Your task to perform on an android device: Show me productivity apps on the Play Store Image 0: 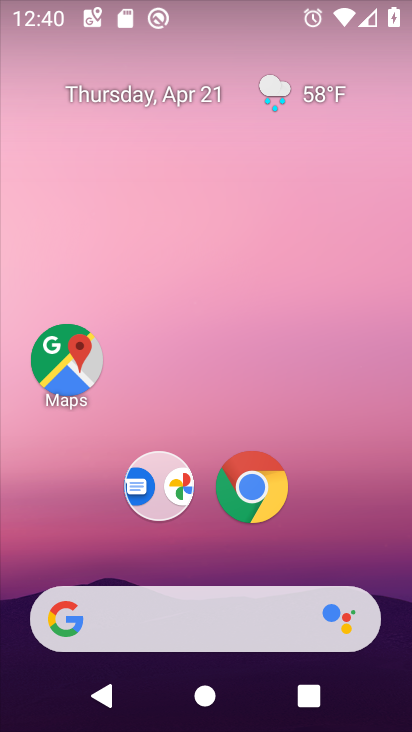
Step 0: drag from (241, 646) to (258, 164)
Your task to perform on an android device: Show me productivity apps on the Play Store Image 1: 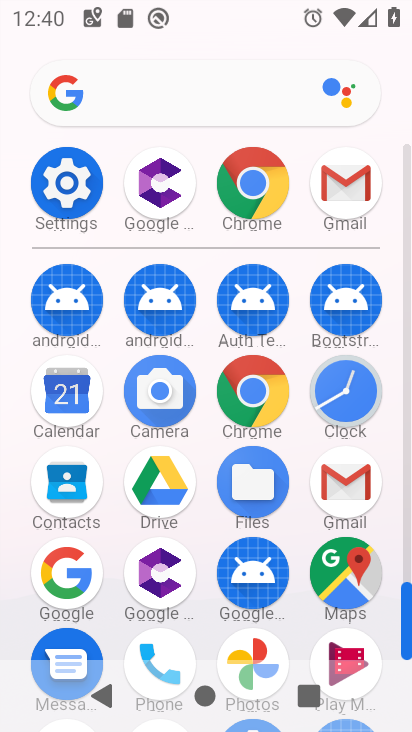
Step 1: drag from (193, 449) to (207, 263)
Your task to perform on an android device: Show me productivity apps on the Play Store Image 2: 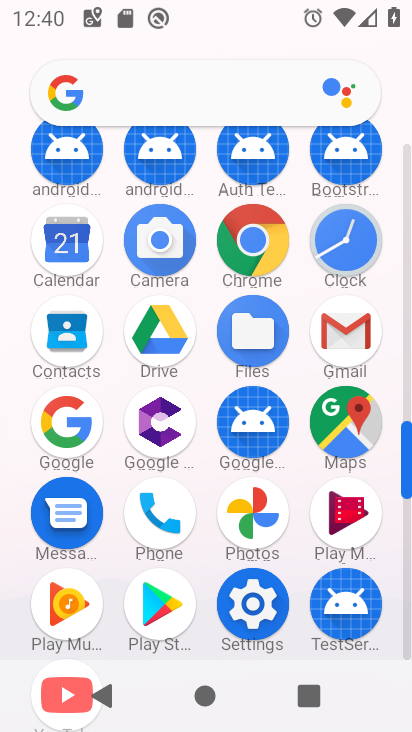
Step 2: click (166, 599)
Your task to perform on an android device: Show me productivity apps on the Play Store Image 3: 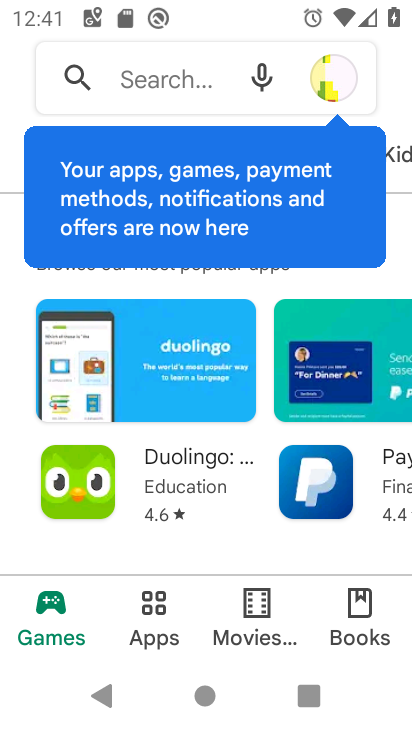
Step 3: click (158, 93)
Your task to perform on an android device: Show me productivity apps on the Play Store Image 4: 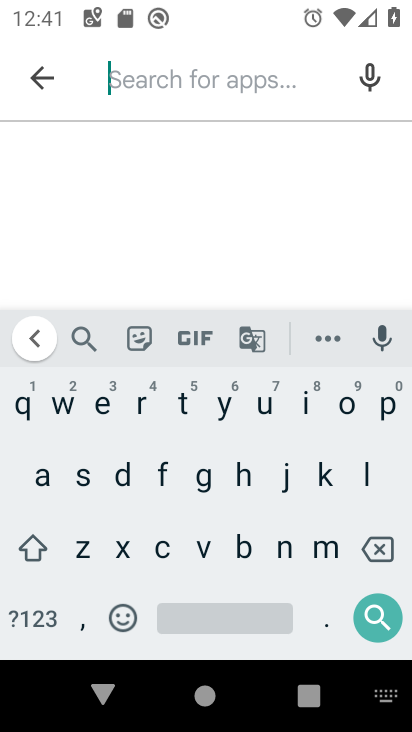
Step 4: click (384, 413)
Your task to perform on an android device: Show me productivity apps on the Play Store Image 5: 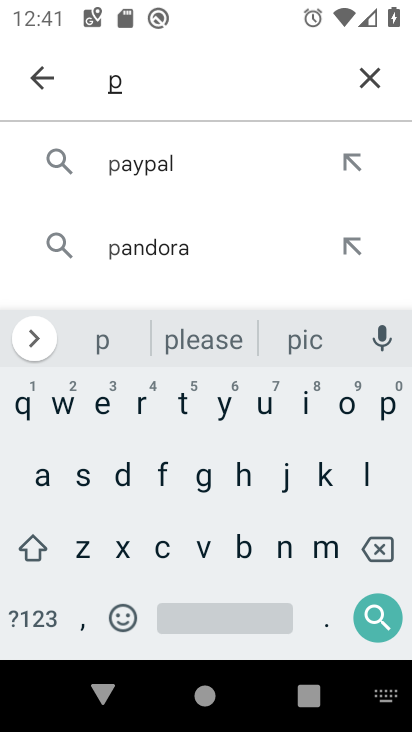
Step 5: click (138, 411)
Your task to perform on an android device: Show me productivity apps on the Play Store Image 6: 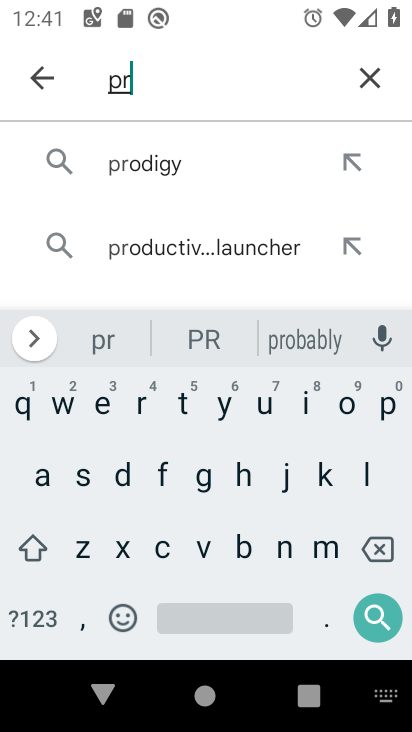
Step 6: click (347, 408)
Your task to perform on an android device: Show me productivity apps on the Play Store Image 7: 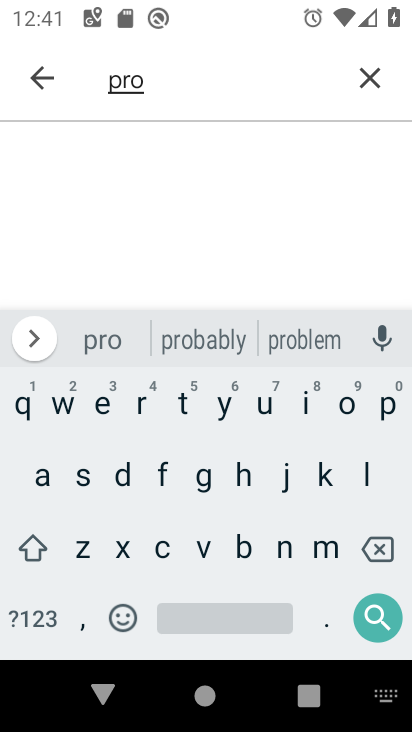
Step 7: click (119, 477)
Your task to perform on an android device: Show me productivity apps on the Play Store Image 8: 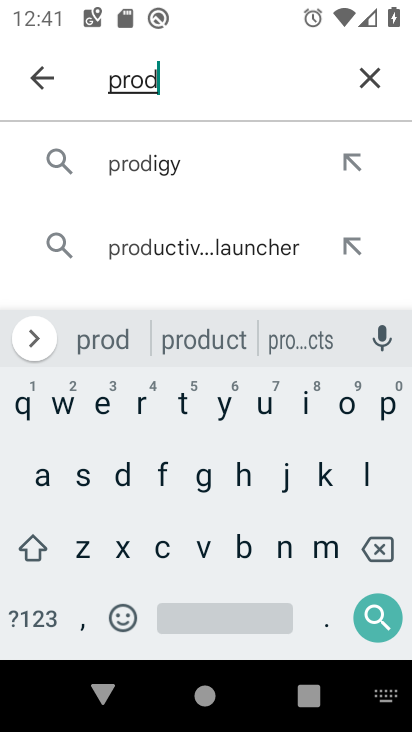
Step 8: click (260, 404)
Your task to perform on an android device: Show me productivity apps on the Play Store Image 9: 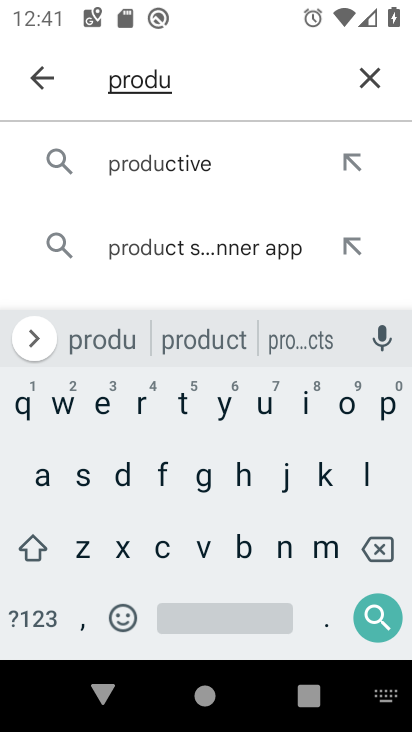
Step 9: click (158, 550)
Your task to perform on an android device: Show me productivity apps on the Play Store Image 10: 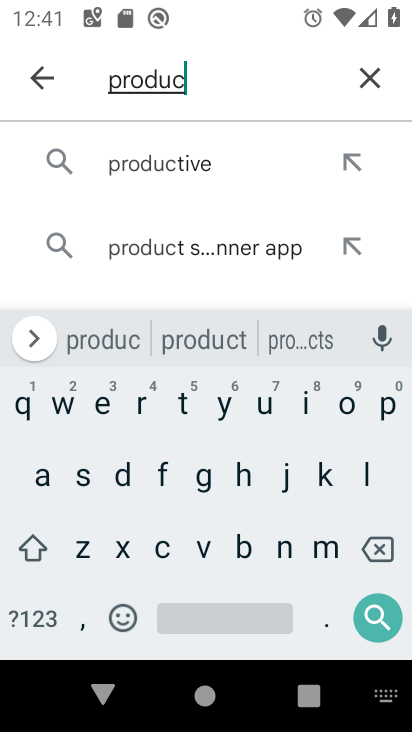
Step 10: click (204, 170)
Your task to perform on an android device: Show me productivity apps on the Play Store Image 11: 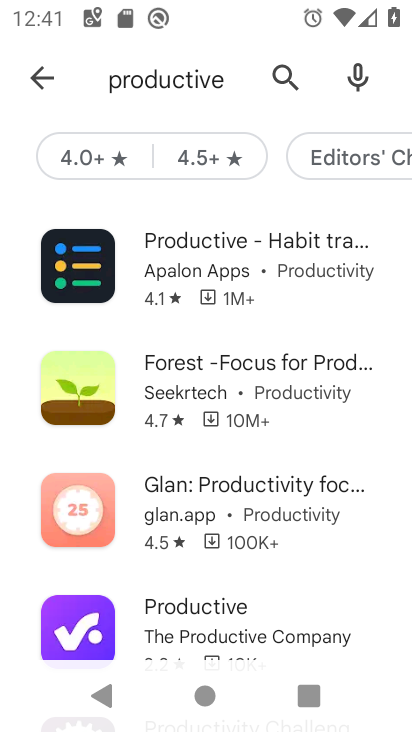
Step 11: task complete